Your task to perform on an android device: turn off notifications in google photos Image 0: 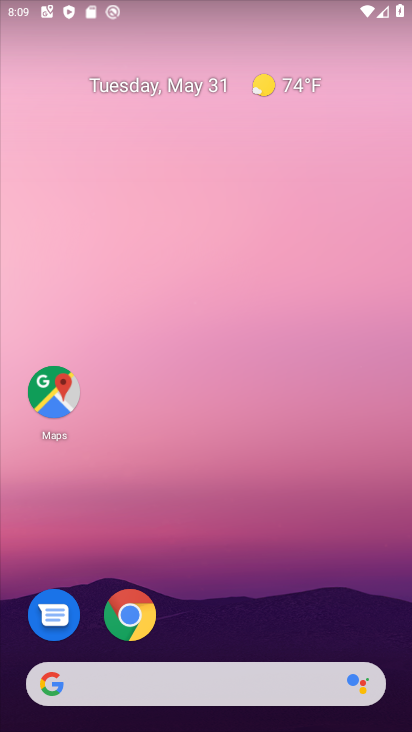
Step 0: drag from (187, 662) to (309, 135)
Your task to perform on an android device: turn off notifications in google photos Image 1: 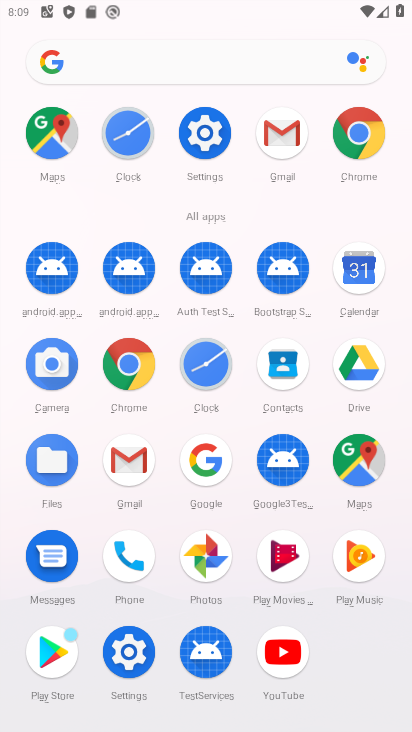
Step 1: click (210, 560)
Your task to perform on an android device: turn off notifications in google photos Image 2: 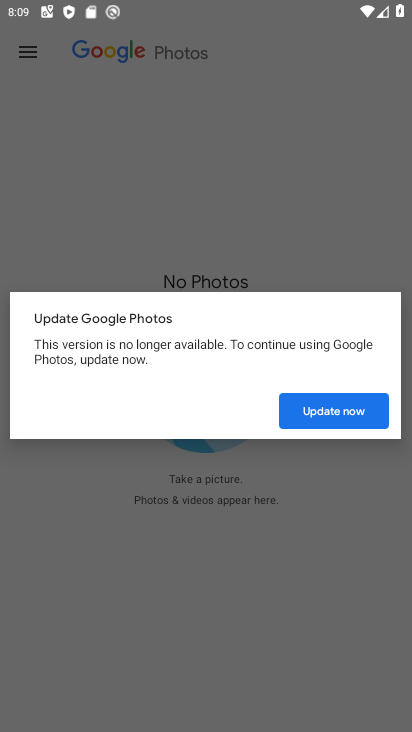
Step 2: click (328, 403)
Your task to perform on an android device: turn off notifications in google photos Image 3: 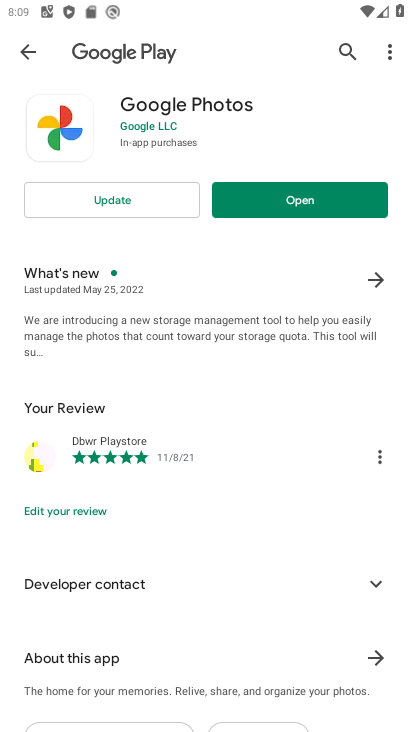
Step 3: click (337, 203)
Your task to perform on an android device: turn off notifications in google photos Image 4: 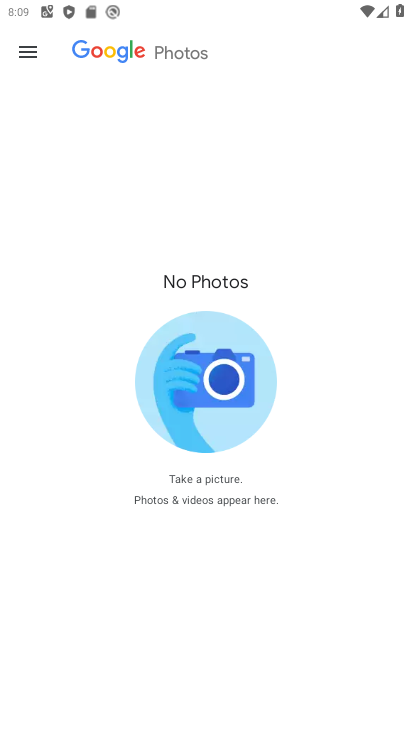
Step 4: click (24, 53)
Your task to perform on an android device: turn off notifications in google photos Image 5: 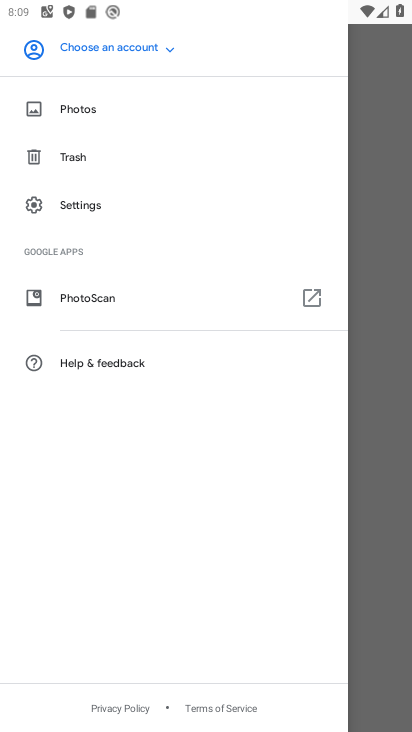
Step 5: click (170, 51)
Your task to perform on an android device: turn off notifications in google photos Image 6: 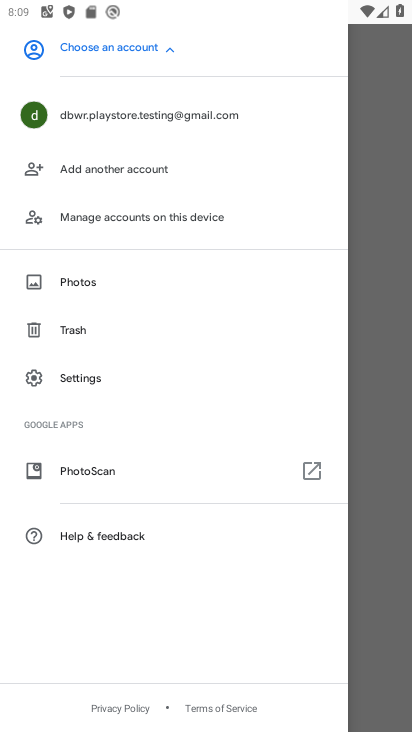
Step 6: click (141, 100)
Your task to perform on an android device: turn off notifications in google photos Image 7: 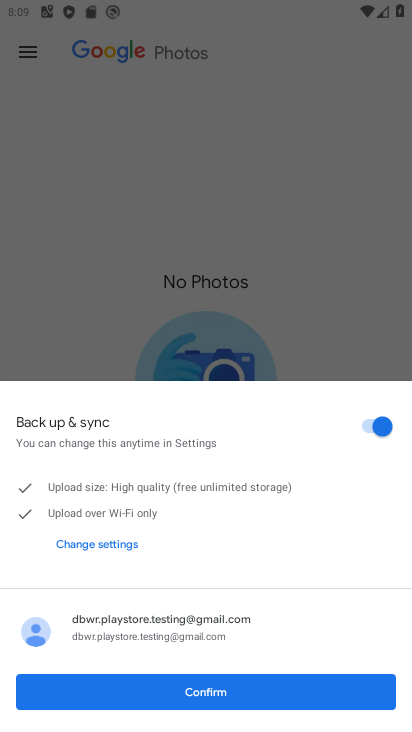
Step 7: click (210, 691)
Your task to perform on an android device: turn off notifications in google photos Image 8: 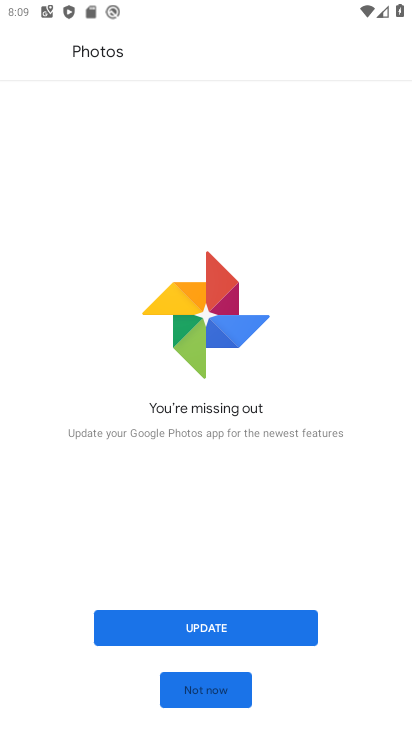
Step 8: click (212, 633)
Your task to perform on an android device: turn off notifications in google photos Image 9: 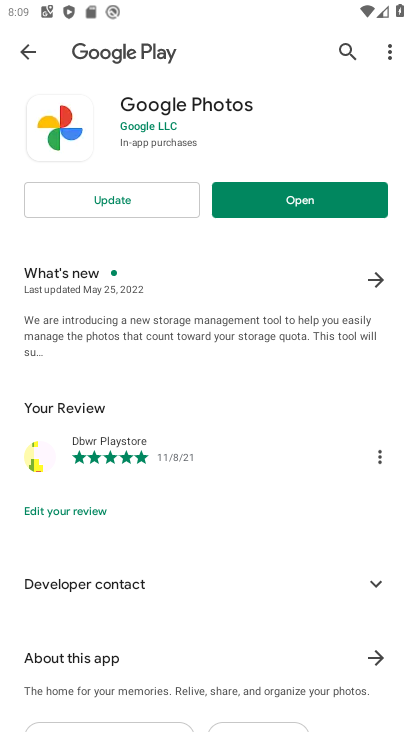
Step 9: click (122, 196)
Your task to perform on an android device: turn off notifications in google photos Image 10: 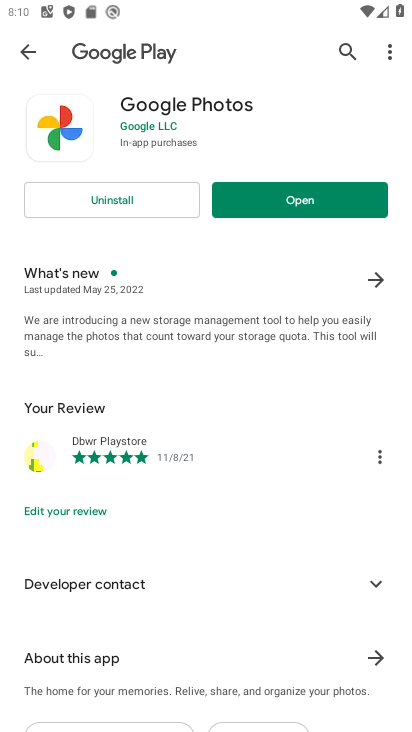
Step 10: click (327, 205)
Your task to perform on an android device: turn off notifications in google photos Image 11: 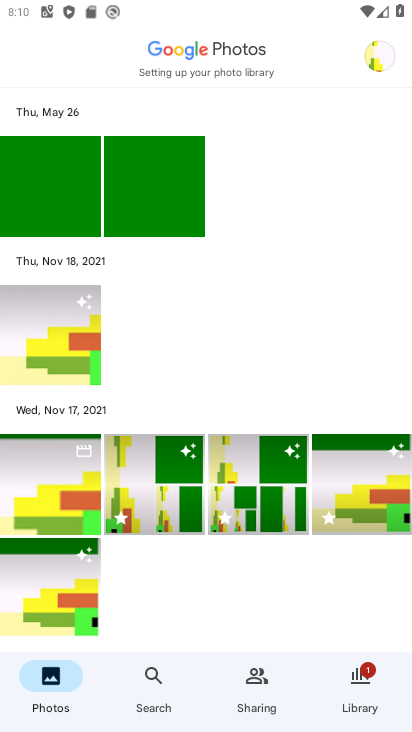
Step 11: click (382, 55)
Your task to perform on an android device: turn off notifications in google photos Image 12: 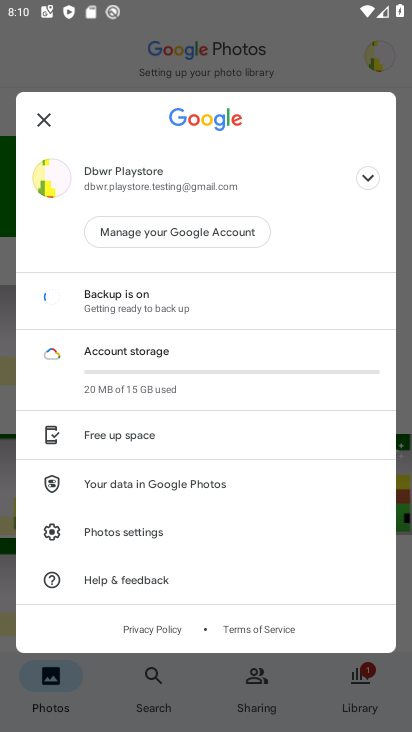
Step 12: click (123, 536)
Your task to perform on an android device: turn off notifications in google photos Image 13: 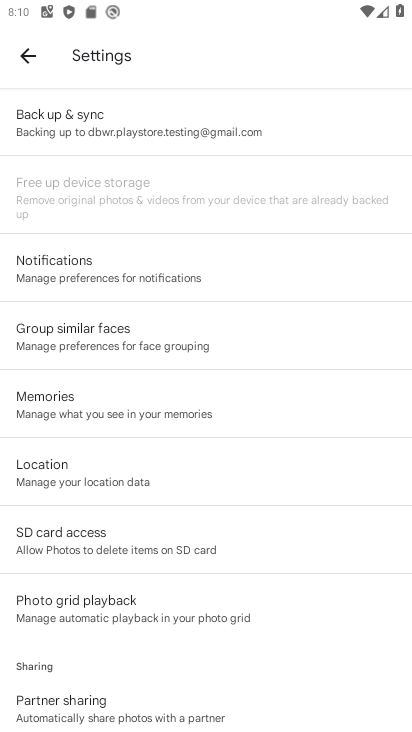
Step 13: click (94, 272)
Your task to perform on an android device: turn off notifications in google photos Image 14: 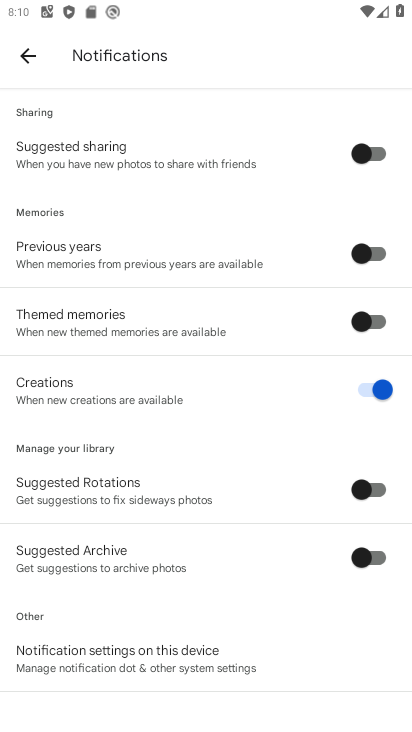
Step 14: drag from (198, 650) to (304, 221)
Your task to perform on an android device: turn off notifications in google photos Image 15: 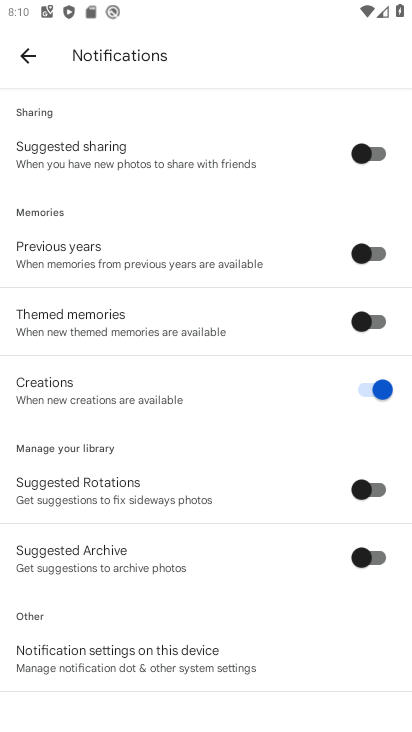
Step 15: click (166, 670)
Your task to perform on an android device: turn off notifications in google photos Image 16: 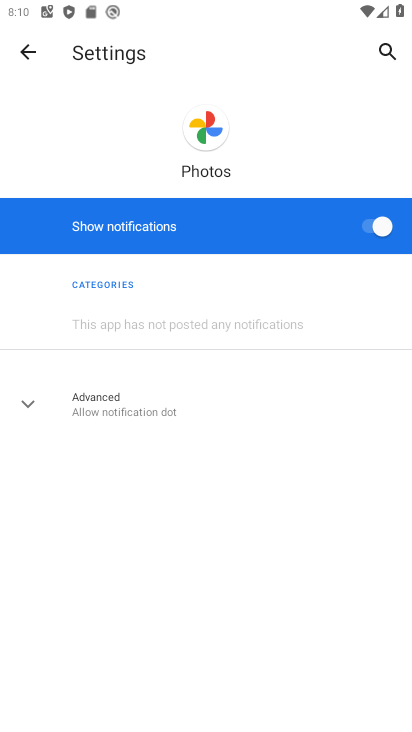
Step 16: click (372, 225)
Your task to perform on an android device: turn off notifications in google photos Image 17: 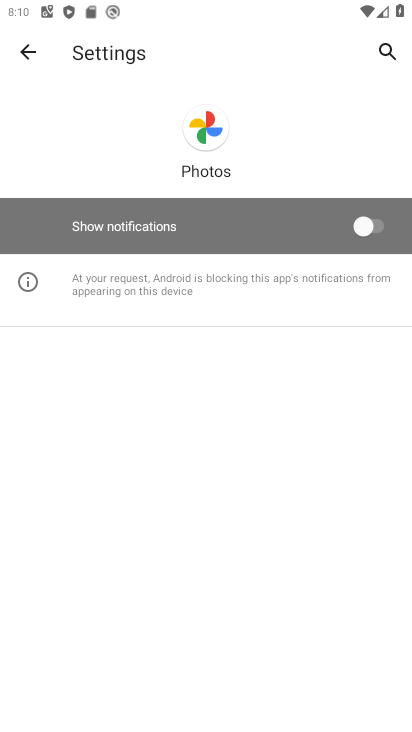
Step 17: task complete